Your task to perform on an android device: Play the last video I watched on Youtube Image 0: 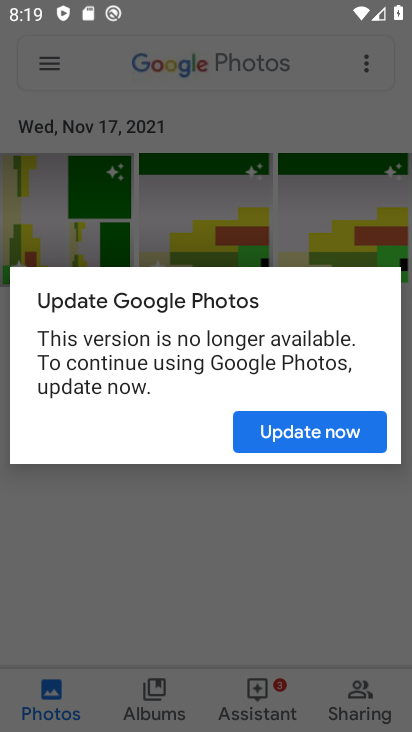
Step 0: press home button
Your task to perform on an android device: Play the last video I watched on Youtube Image 1: 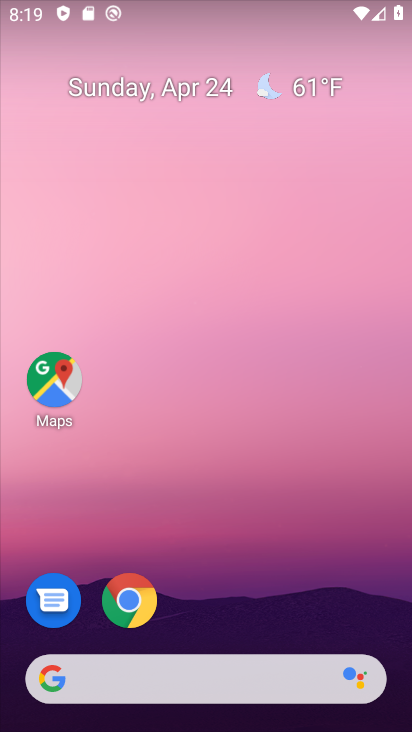
Step 1: drag from (217, 649) to (209, 144)
Your task to perform on an android device: Play the last video I watched on Youtube Image 2: 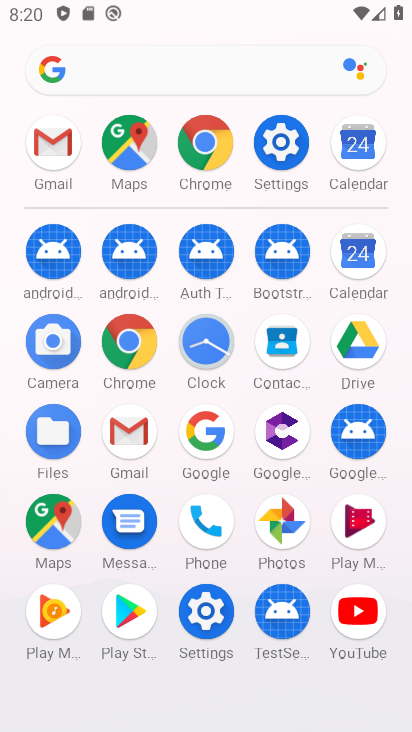
Step 2: click (364, 611)
Your task to perform on an android device: Play the last video I watched on Youtube Image 3: 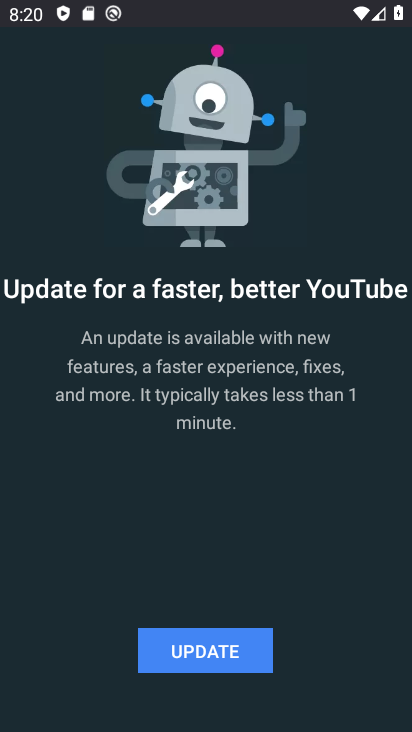
Step 3: task complete